Your task to perform on an android device: Search for sushi restaurants on Maps Image 0: 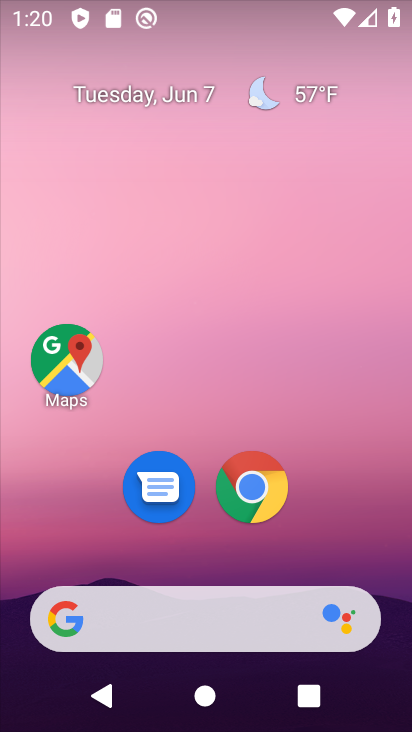
Step 0: drag from (219, 594) to (313, 43)
Your task to perform on an android device: Search for sushi restaurants on Maps Image 1: 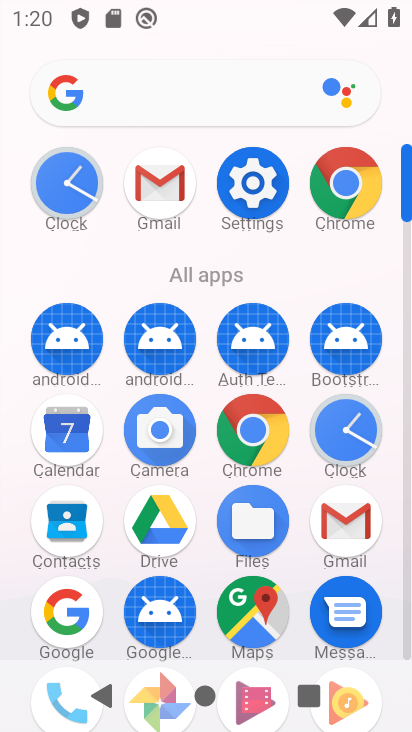
Step 1: click (259, 606)
Your task to perform on an android device: Search for sushi restaurants on Maps Image 2: 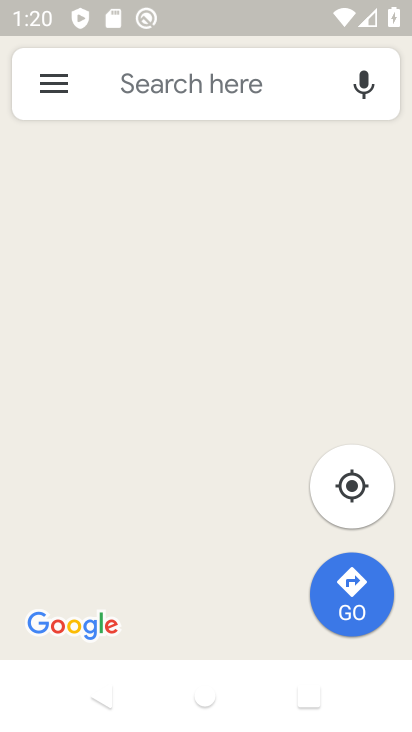
Step 2: click (230, 88)
Your task to perform on an android device: Search for sushi restaurants on Maps Image 3: 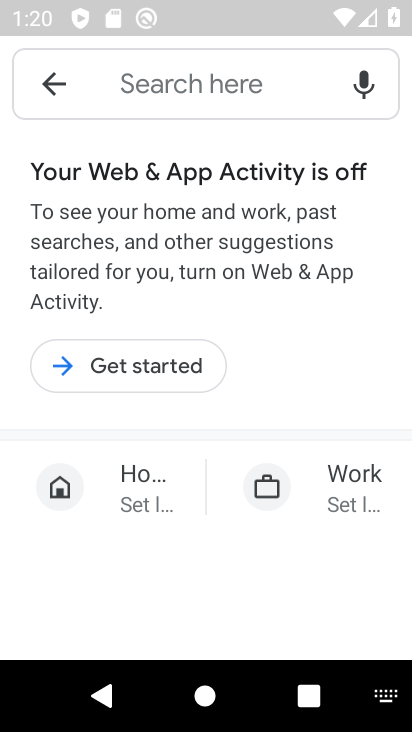
Step 3: click (136, 373)
Your task to perform on an android device: Search for sushi restaurants on Maps Image 4: 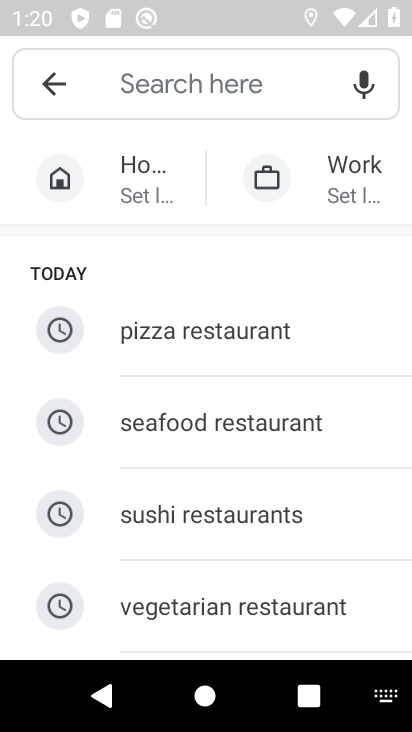
Step 4: drag from (201, 516) to (195, 336)
Your task to perform on an android device: Search for sushi restaurants on Maps Image 5: 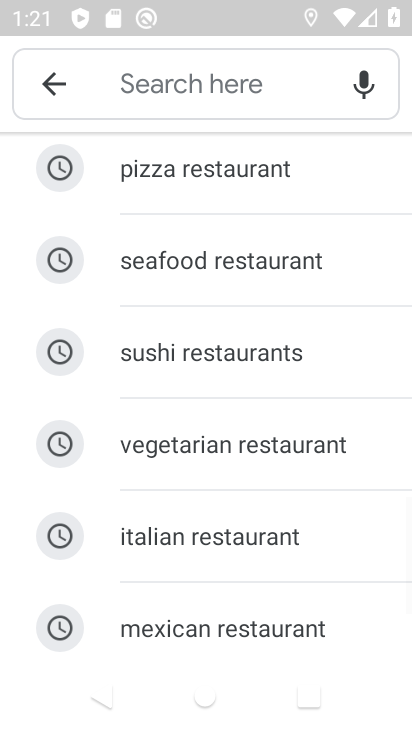
Step 5: click (195, 338)
Your task to perform on an android device: Search for sushi restaurants on Maps Image 6: 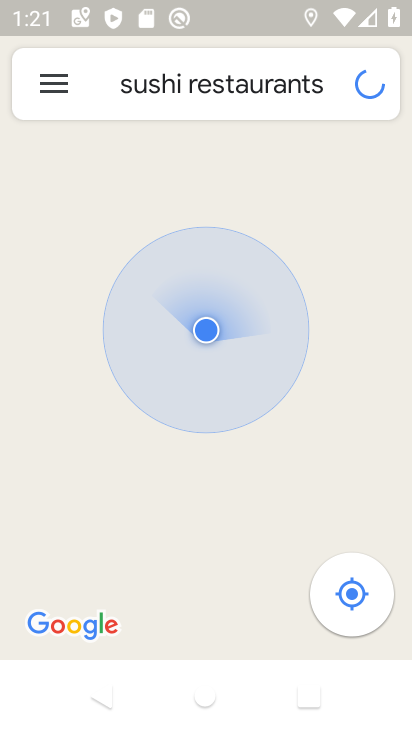
Step 6: task complete